Your task to perform on an android device: empty trash in the gmail app Image 0: 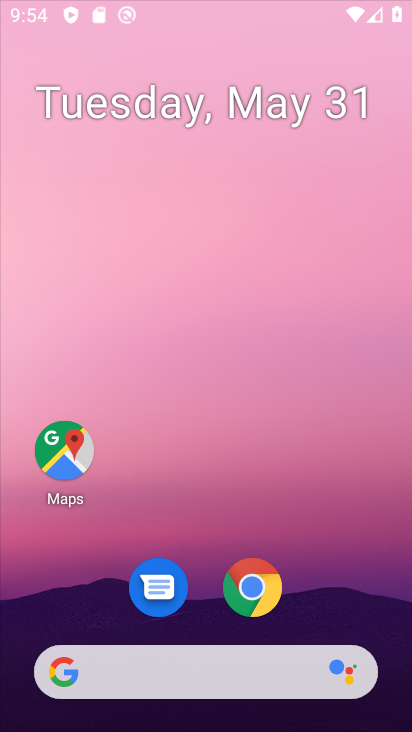
Step 0: press home button
Your task to perform on an android device: empty trash in the gmail app Image 1: 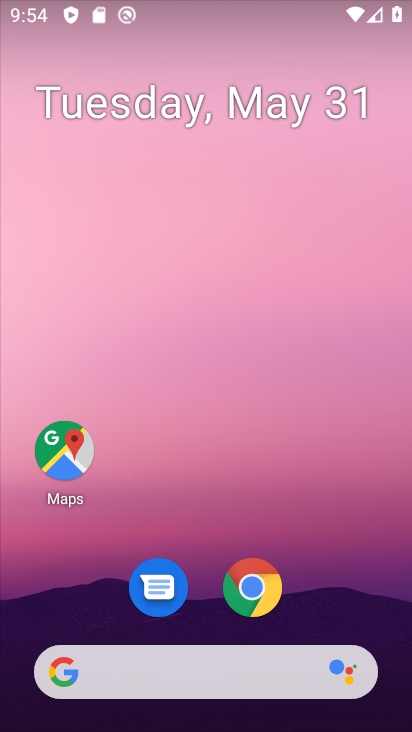
Step 1: drag from (209, 618) to (215, 76)
Your task to perform on an android device: empty trash in the gmail app Image 2: 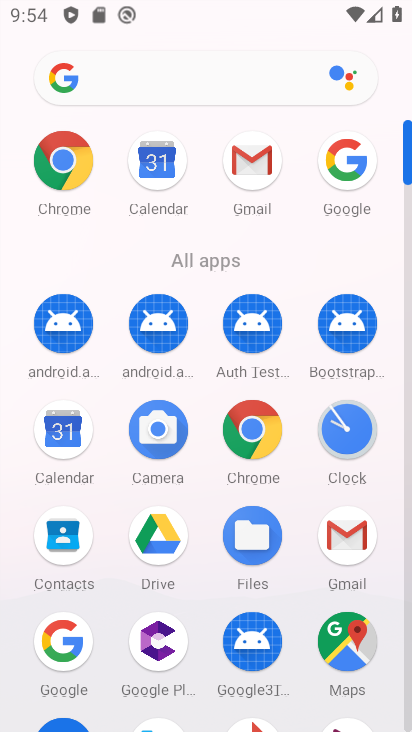
Step 2: click (345, 528)
Your task to perform on an android device: empty trash in the gmail app Image 3: 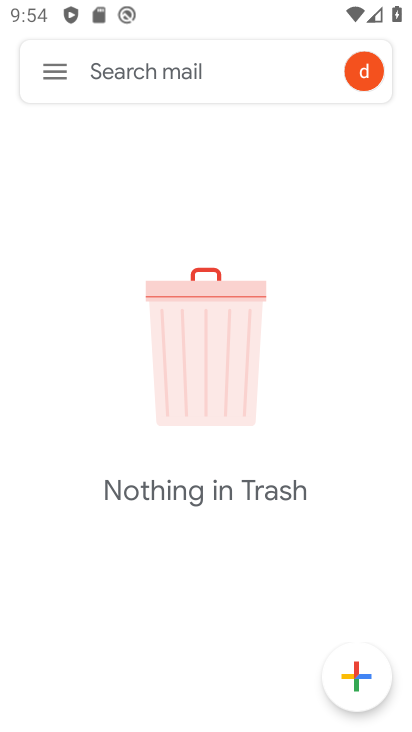
Step 3: task complete